Your task to perform on an android device: refresh tabs in the chrome app Image 0: 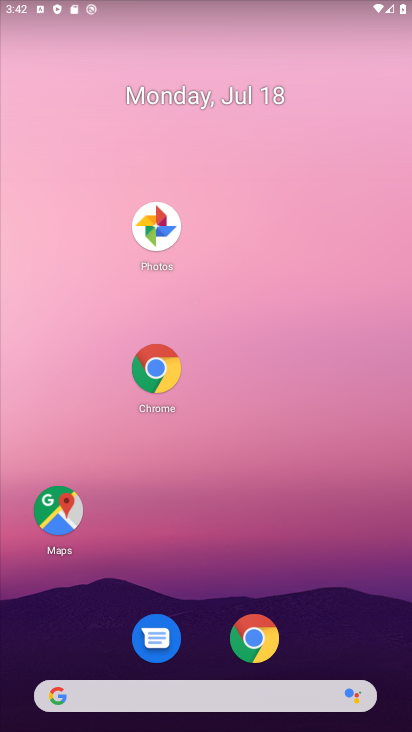
Step 0: click (255, 648)
Your task to perform on an android device: refresh tabs in the chrome app Image 1: 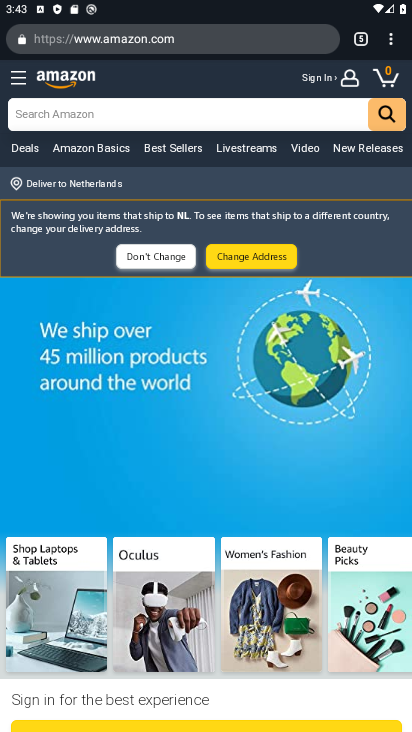
Step 1: click (390, 27)
Your task to perform on an android device: refresh tabs in the chrome app Image 2: 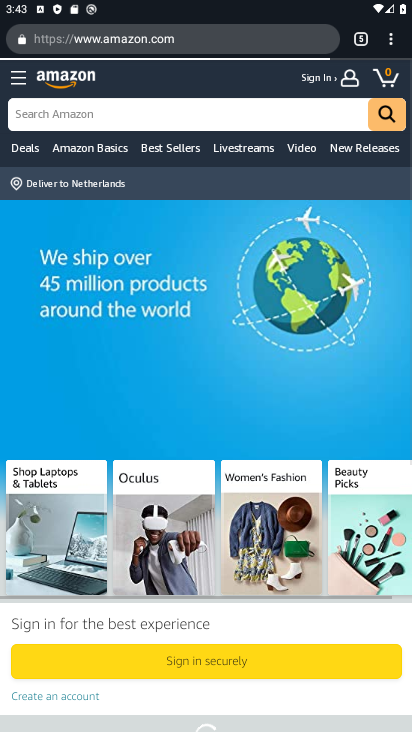
Step 2: click (397, 40)
Your task to perform on an android device: refresh tabs in the chrome app Image 3: 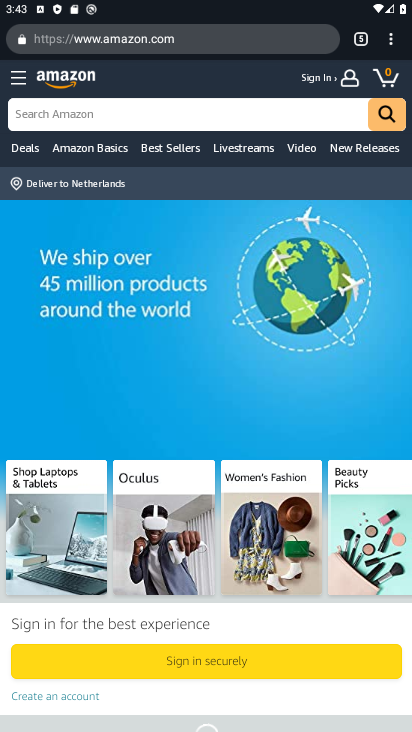
Step 3: click (404, 42)
Your task to perform on an android device: refresh tabs in the chrome app Image 4: 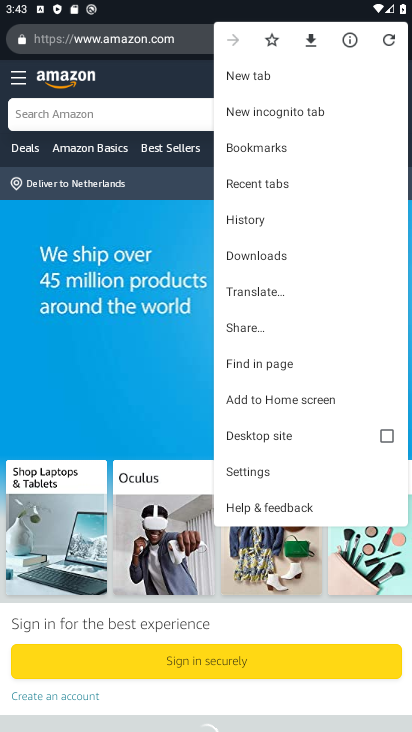
Step 4: click (389, 41)
Your task to perform on an android device: refresh tabs in the chrome app Image 5: 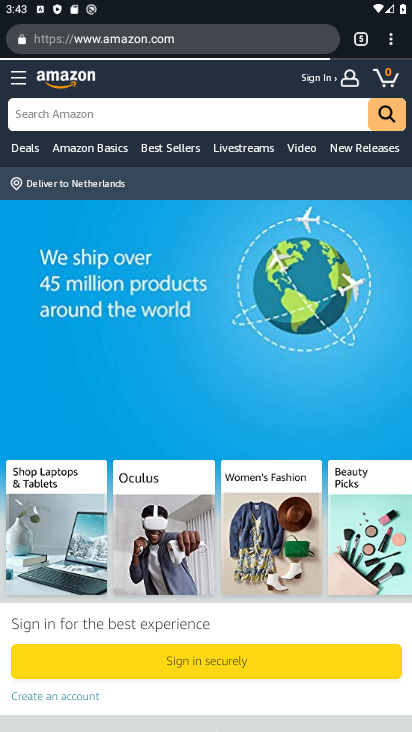
Step 5: task complete